Your task to perform on an android device: Show me the alarms in the clock app Image 0: 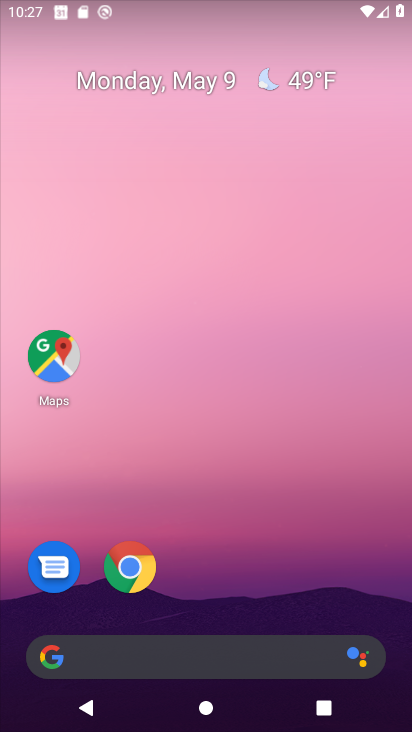
Step 0: press home button
Your task to perform on an android device: Show me the alarms in the clock app Image 1: 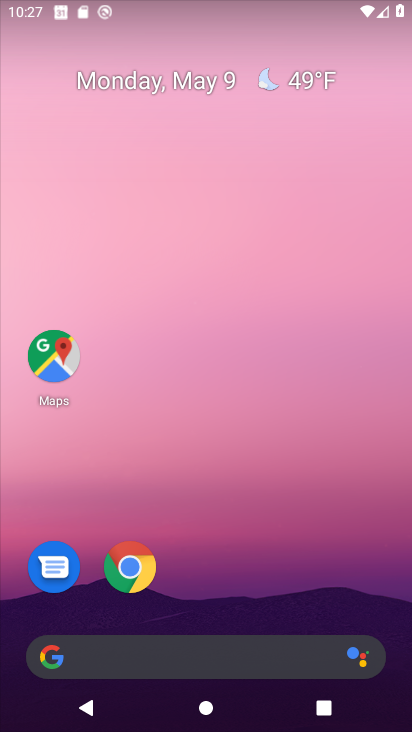
Step 1: drag from (141, 624) to (145, 311)
Your task to perform on an android device: Show me the alarms in the clock app Image 2: 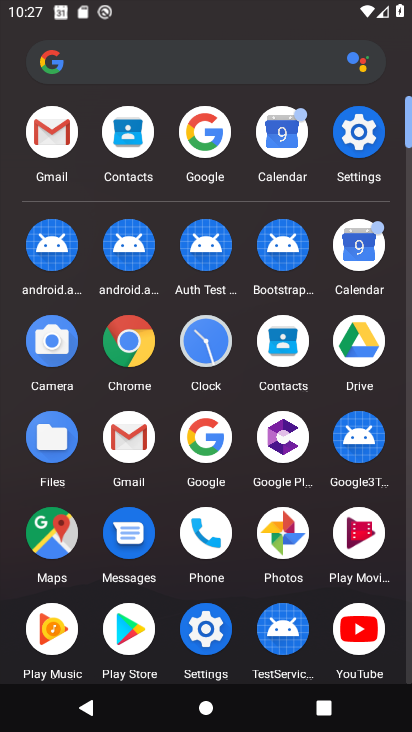
Step 2: click (193, 342)
Your task to perform on an android device: Show me the alarms in the clock app Image 3: 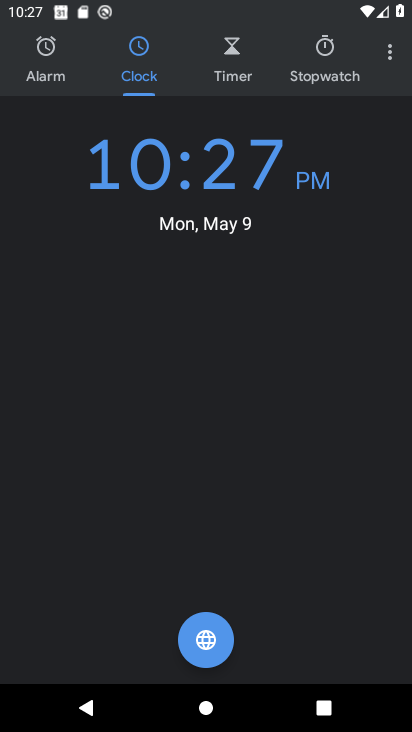
Step 3: click (39, 68)
Your task to perform on an android device: Show me the alarms in the clock app Image 4: 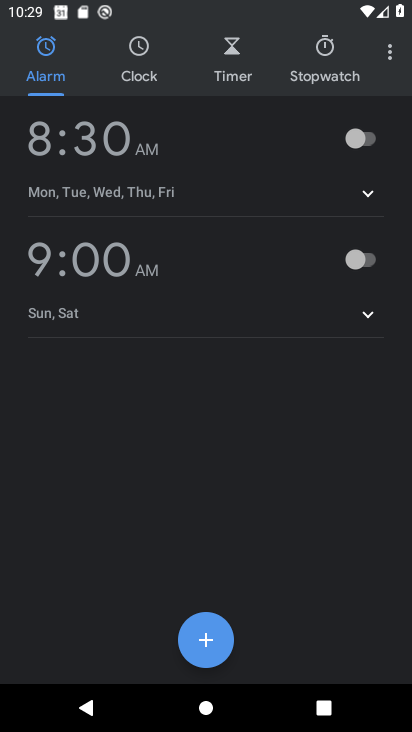
Step 4: task complete